Your task to perform on an android device: Do I have any events tomorrow? Image 0: 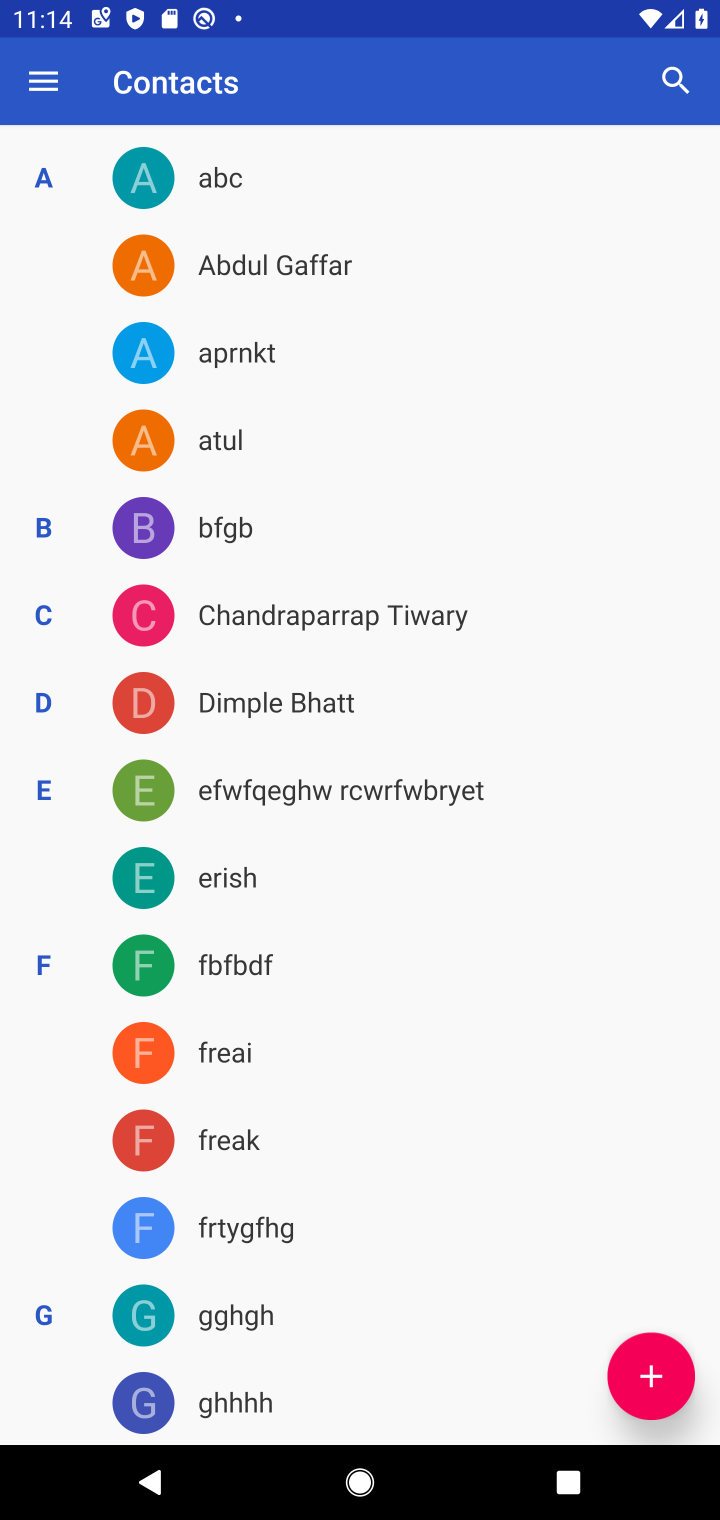
Step 0: press back button
Your task to perform on an android device: Do I have any events tomorrow? Image 1: 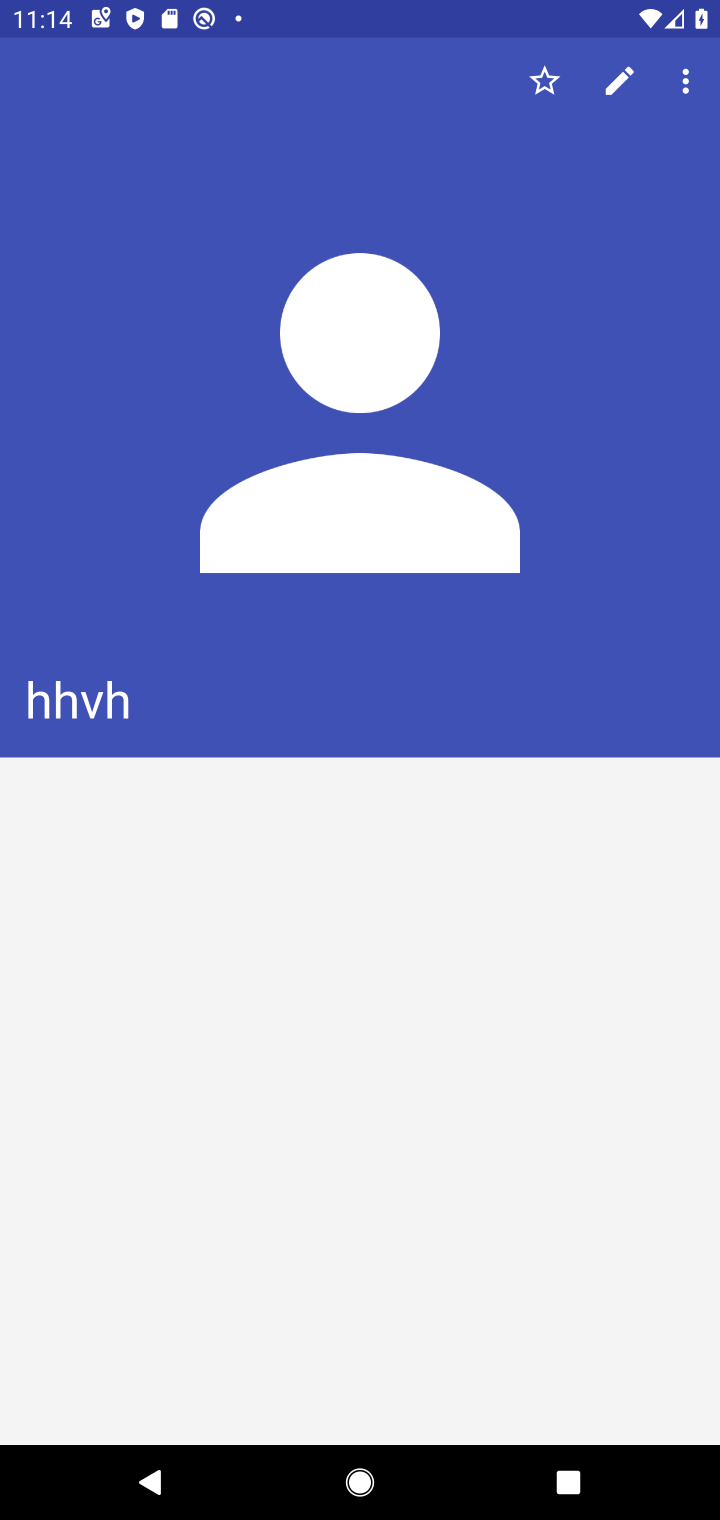
Step 1: press back button
Your task to perform on an android device: Do I have any events tomorrow? Image 2: 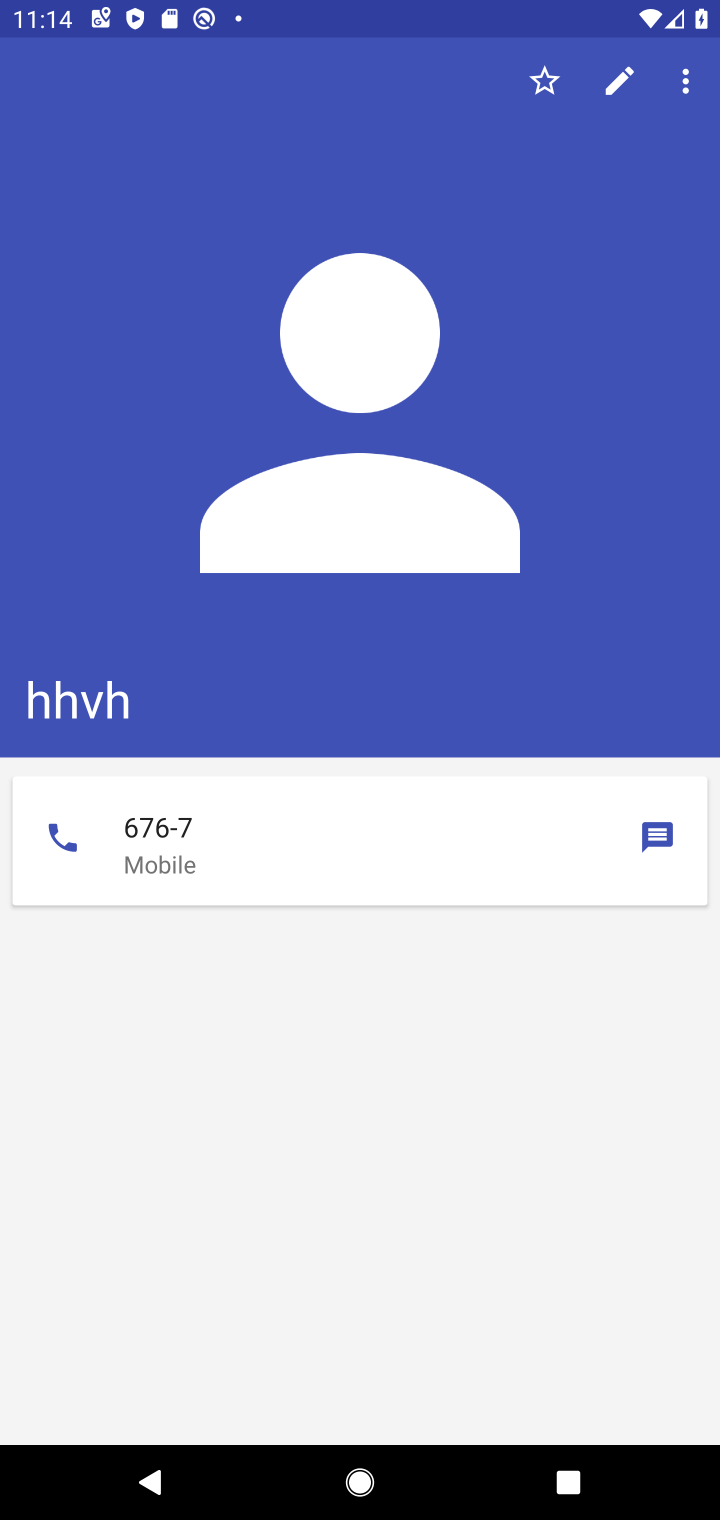
Step 2: press back button
Your task to perform on an android device: Do I have any events tomorrow? Image 3: 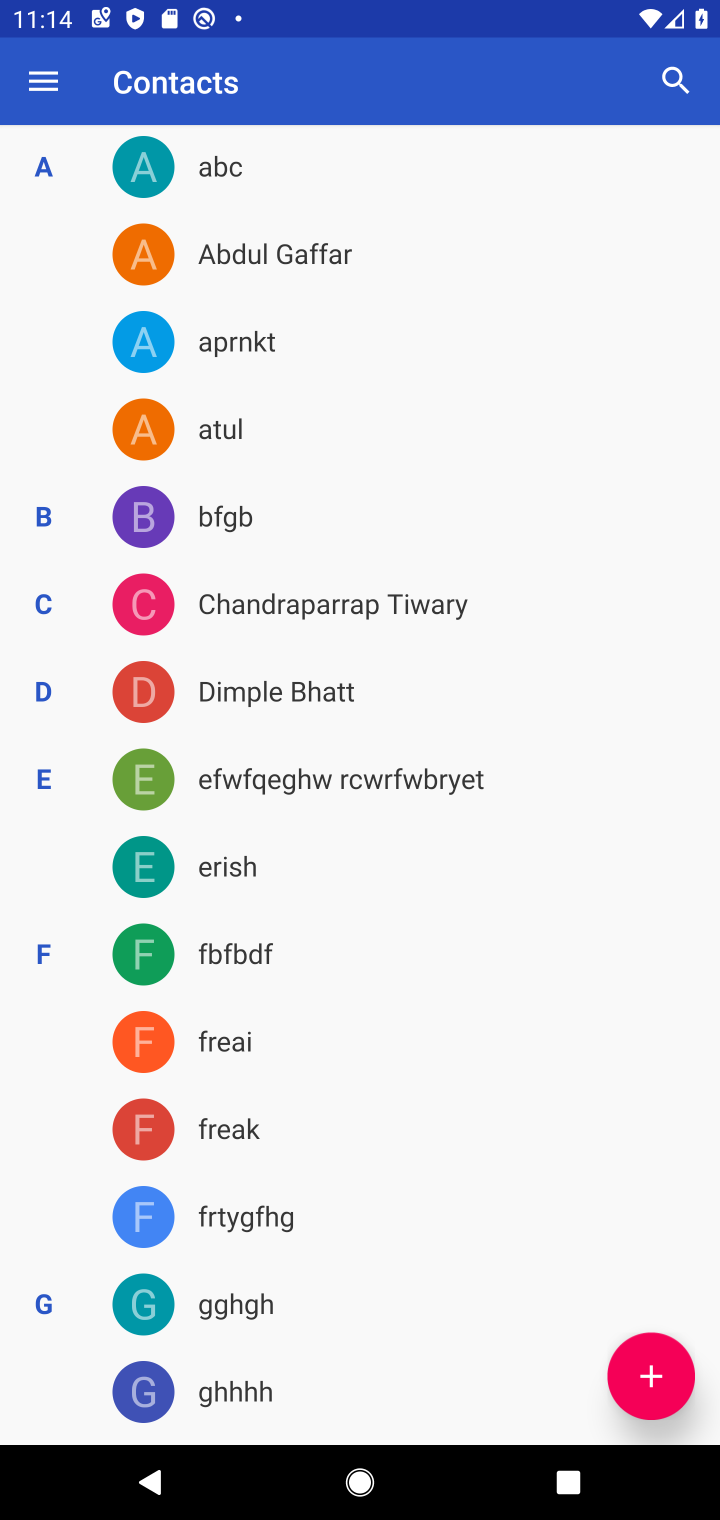
Step 3: press back button
Your task to perform on an android device: Do I have any events tomorrow? Image 4: 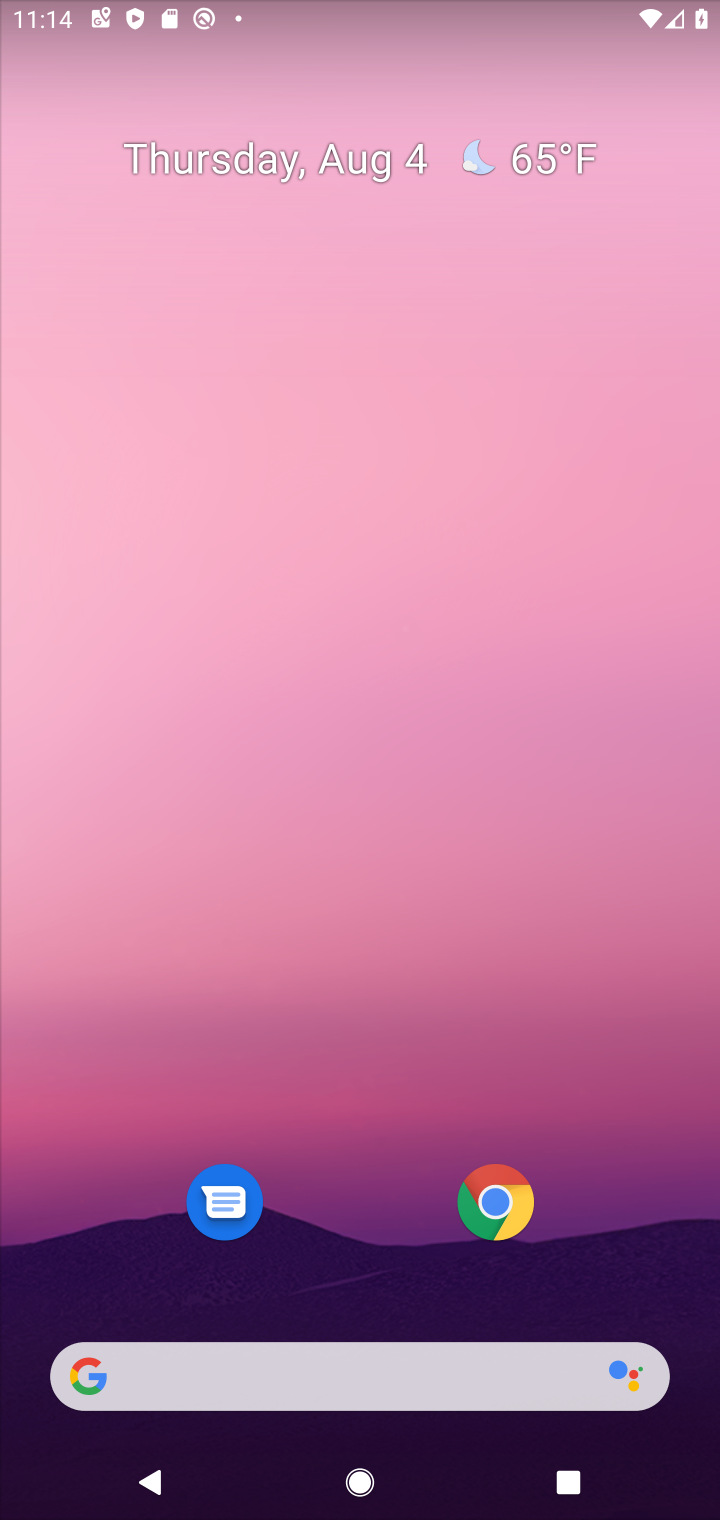
Step 4: press back button
Your task to perform on an android device: Do I have any events tomorrow? Image 5: 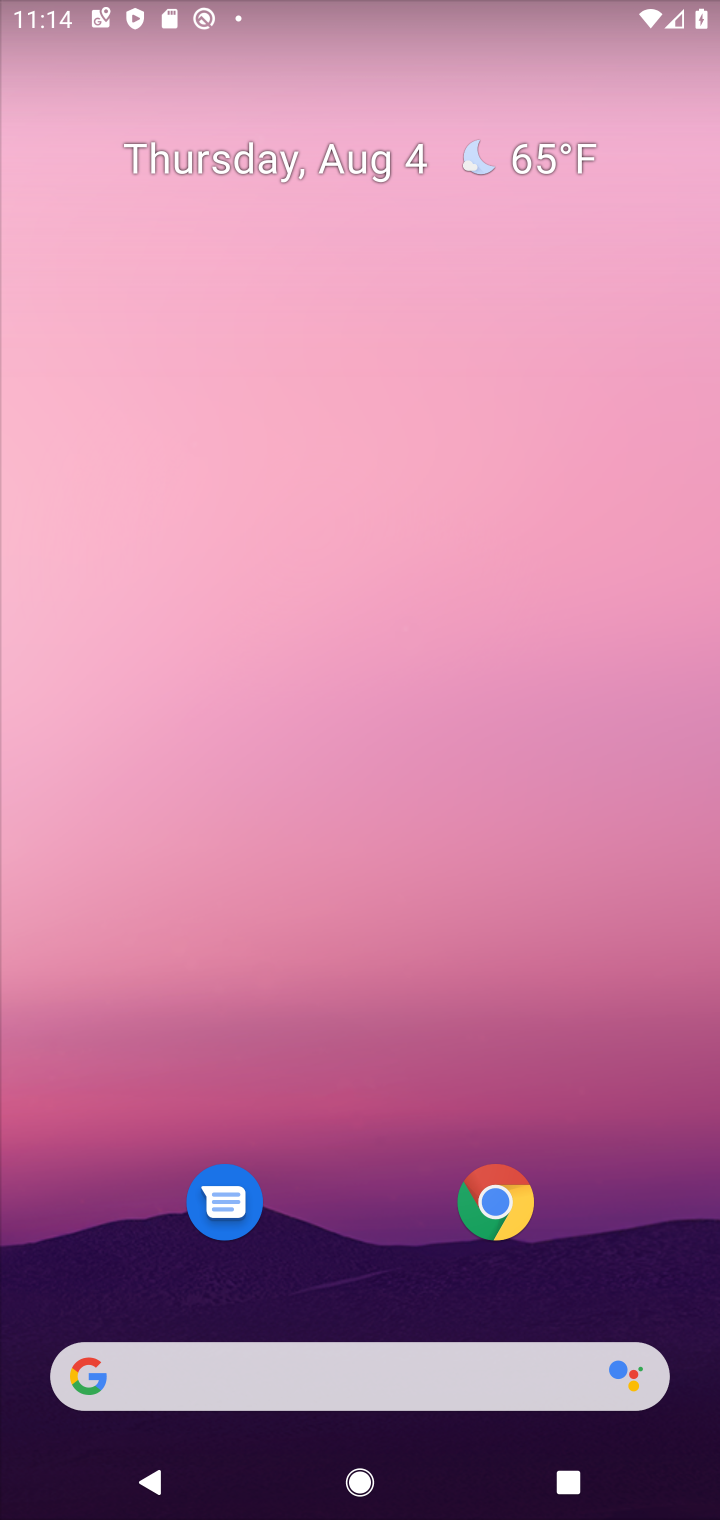
Step 5: drag from (394, 915) to (516, 272)
Your task to perform on an android device: Do I have any events tomorrow? Image 6: 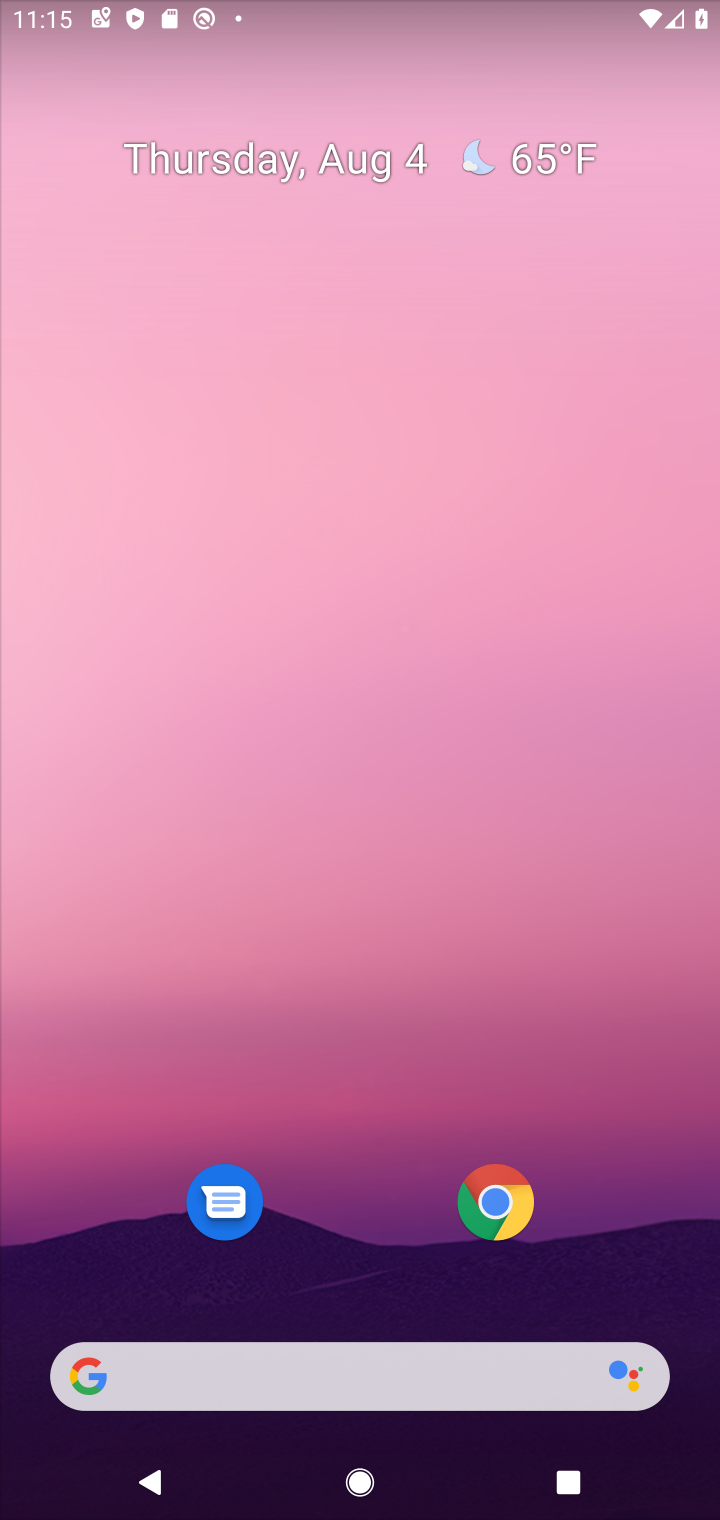
Step 6: drag from (294, 752) to (370, 39)
Your task to perform on an android device: Do I have any events tomorrow? Image 7: 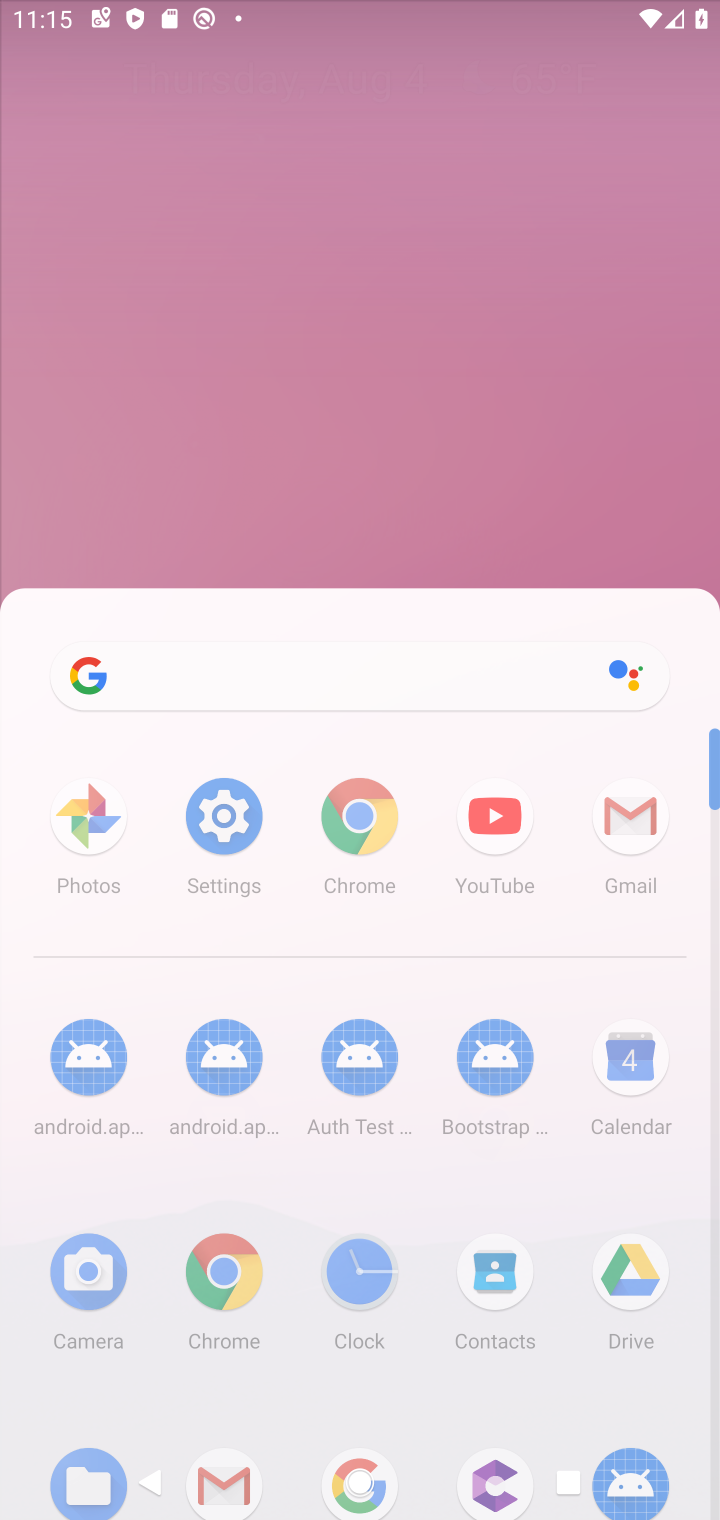
Step 7: drag from (333, 1071) to (404, 124)
Your task to perform on an android device: Do I have any events tomorrow? Image 8: 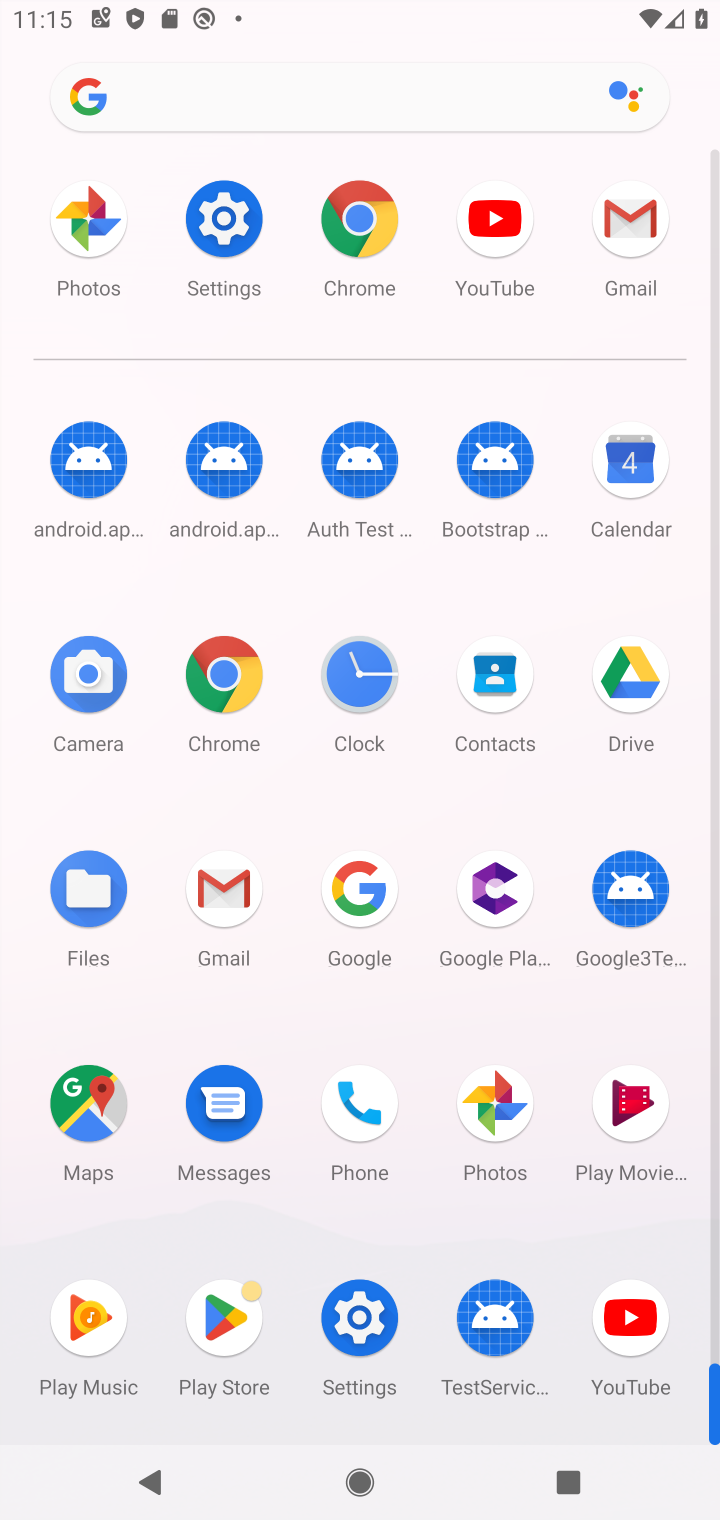
Step 8: click (625, 469)
Your task to perform on an android device: Do I have any events tomorrow? Image 9: 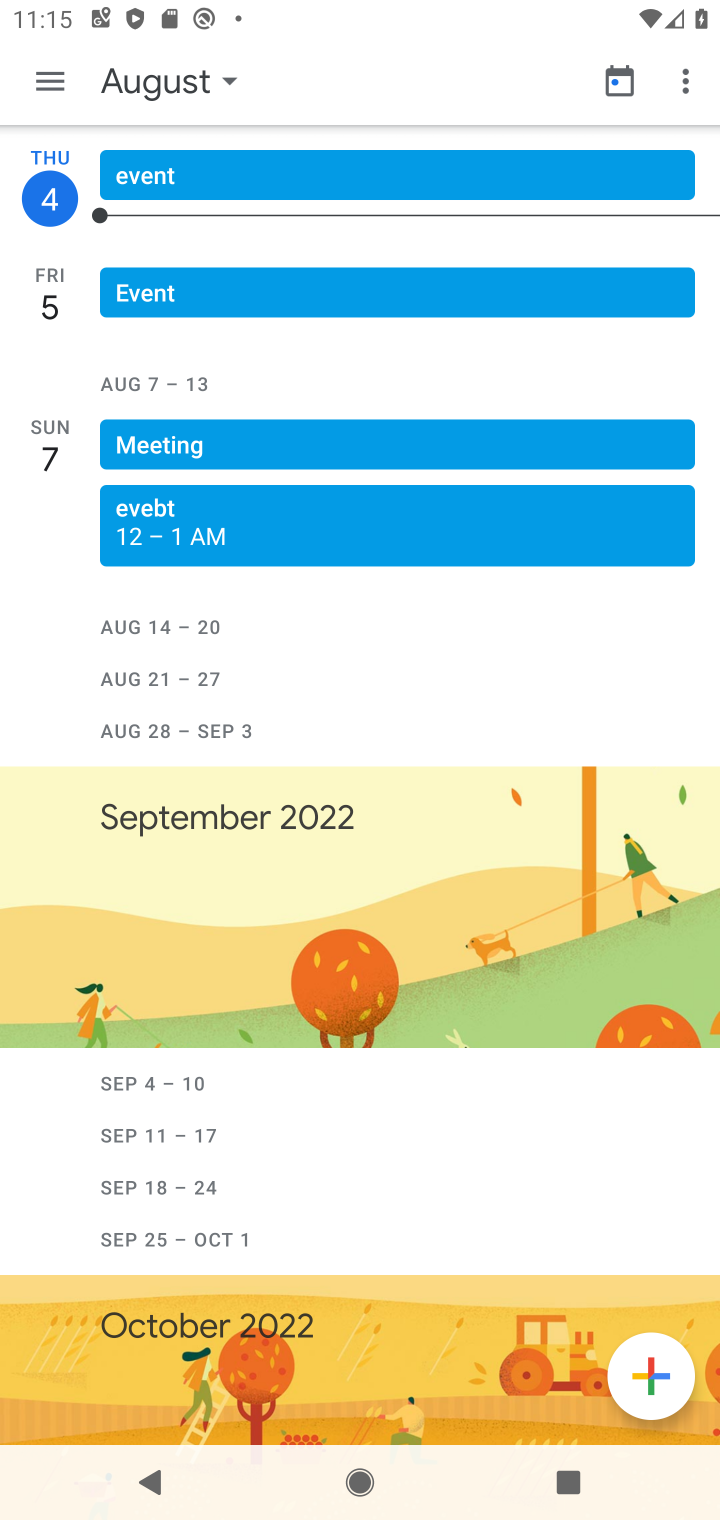
Step 9: task complete